Your task to perform on an android device: Open location settings Image 0: 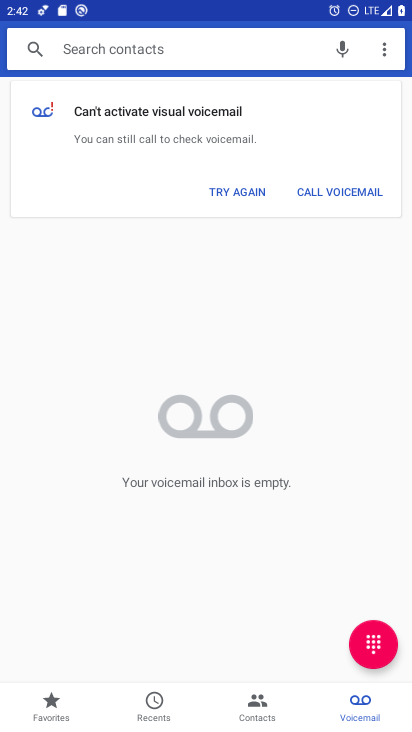
Step 0: press home button
Your task to perform on an android device: Open location settings Image 1: 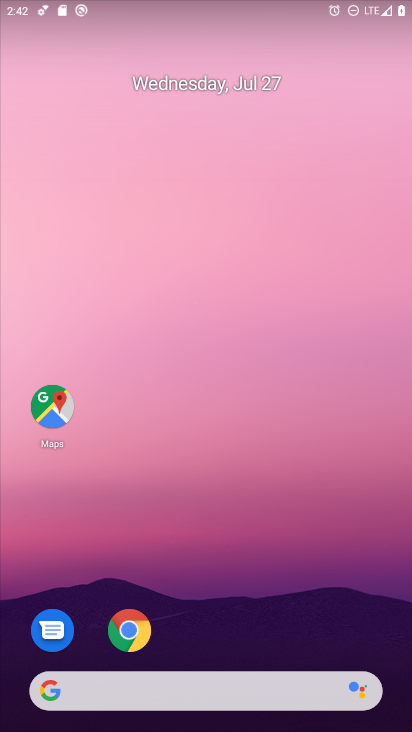
Step 1: drag from (364, 622) to (299, 148)
Your task to perform on an android device: Open location settings Image 2: 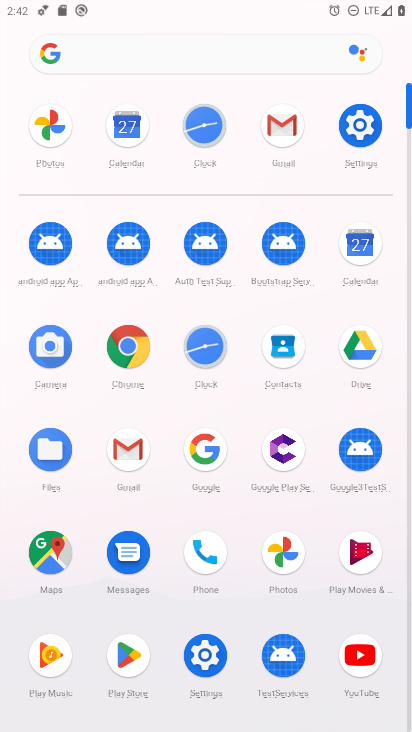
Step 2: click (204, 656)
Your task to perform on an android device: Open location settings Image 3: 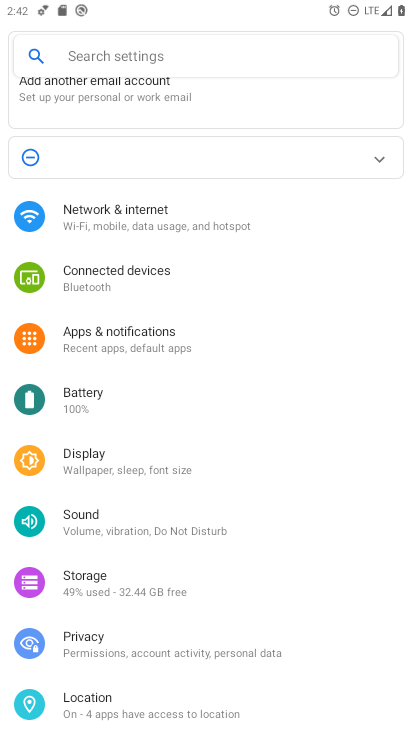
Step 3: drag from (274, 670) to (285, 198)
Your task to perform on an android device: Open location settings Image 4: 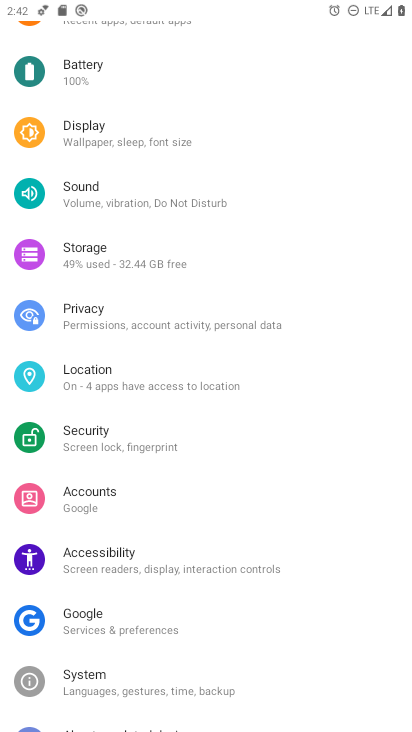
Step 4: click (86, 376)
Your task to perform on an android device: Open location settings Image 5: 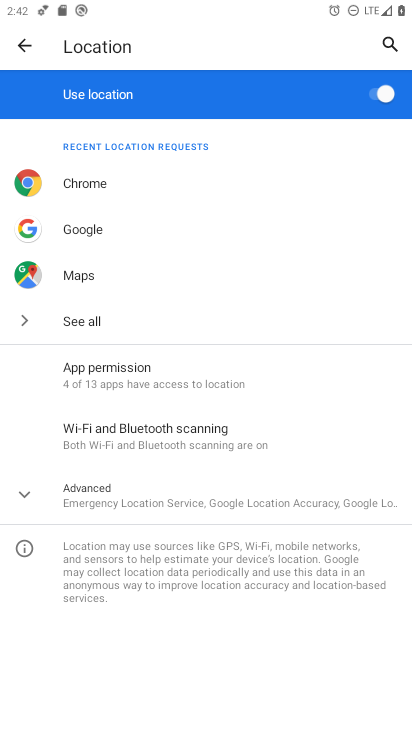
Step 5: click (21, 499)
Your task to perform on an android device: Open location settings Image 6: 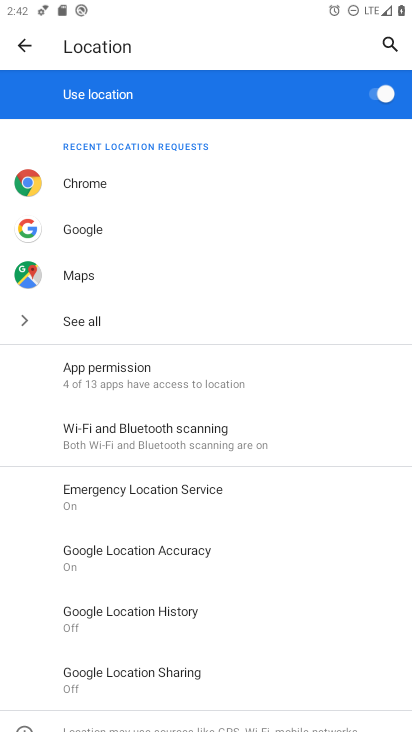
Step 6: task complete